Your task to perform on an android device: Go to accessibility settings Image 0: 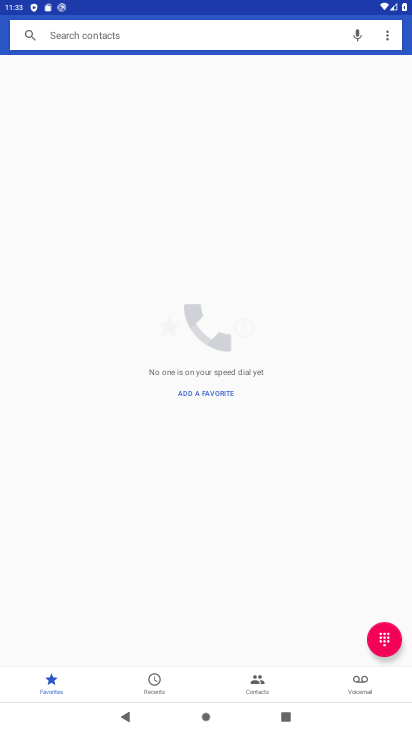
Step 0: press home button
Your task to perform on an android device: Go to accessibility settings Image 1: 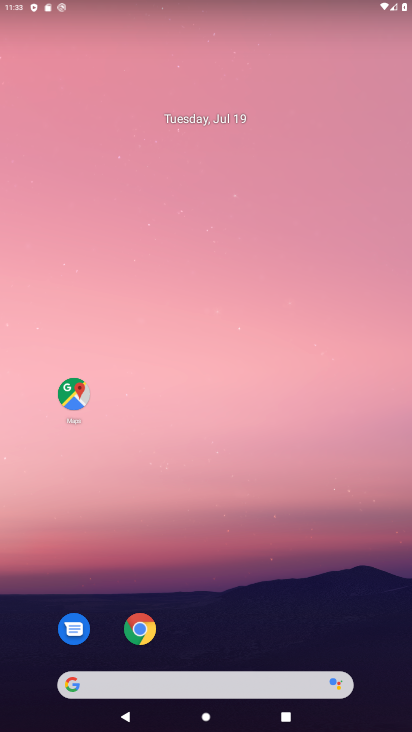
Step 1: drag from (199, 605) to (206, 17)
Your task to perform on an android device: Go to accessibility settings Image 2: 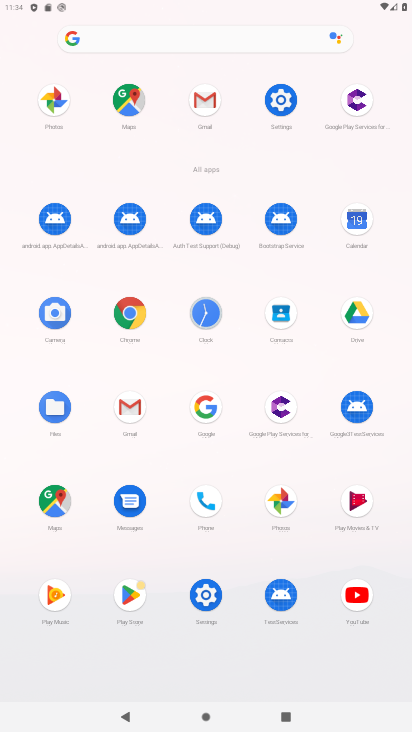
Step 2: click (204, 598)
Your task to perform on an android device: Go to accessibility settings Image 3: 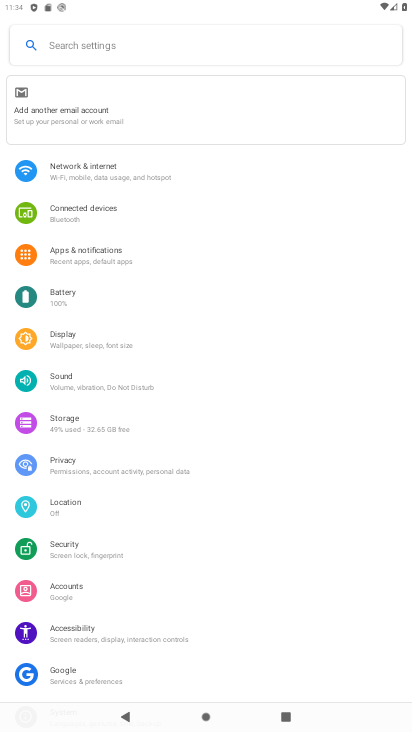
Step 3: click (78, 638)
Your task to perform on an android device: Go to accessibility settings Image 4: 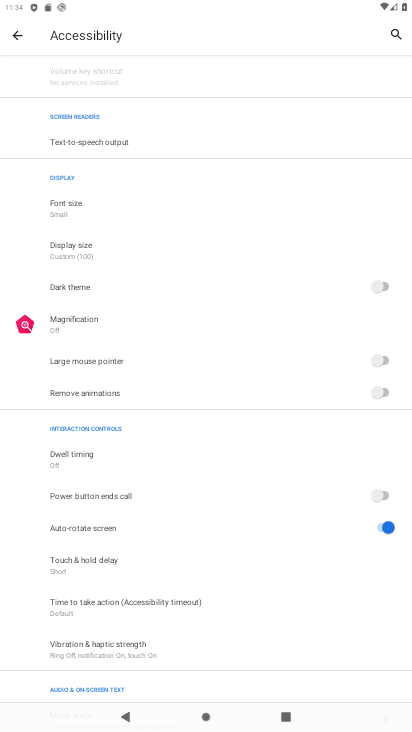
Step 4: task complete